Your task to perform on an android device: empty trash in the gmail app Image 0: 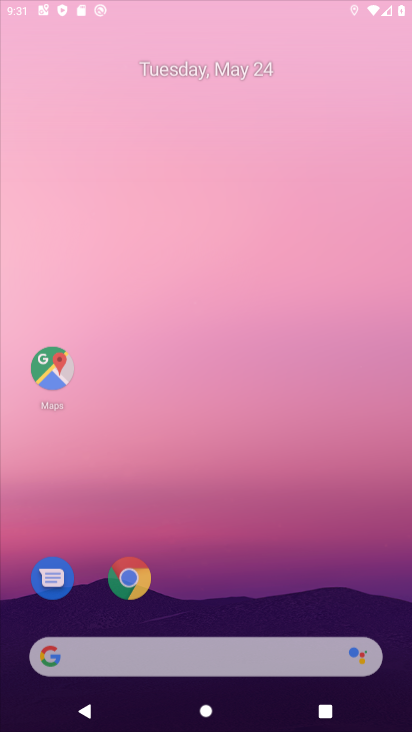
Step 0: click (151, 2)
Your task to perform on an android device: empty trash in the gmail app Image 1: 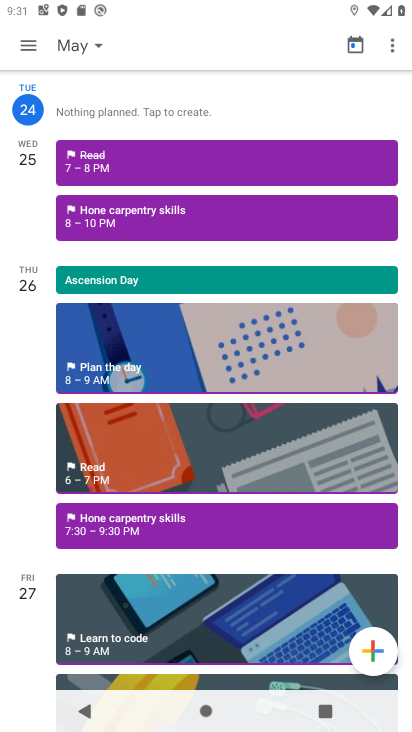
Step 1: press back button
Your task to perform on an android device: empty trash in the gmail app Image 2: 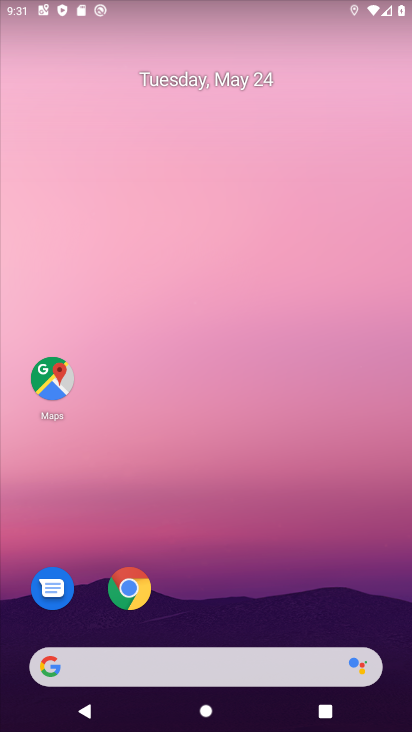
Step 2: drag from (212, 398) to (194, 70)
Your task to perform on an android device: empty trash in the gmail app Image 3: 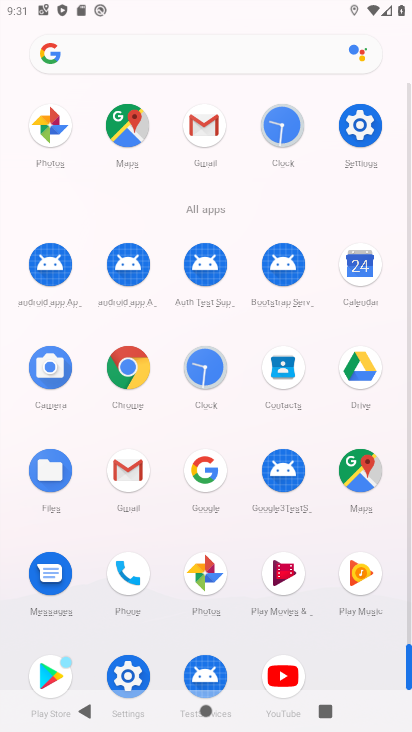
Step 3: drag from (4, 453) to (0, 228)
Your task to perform on an android device: empty trash in the gmail app Image 4: 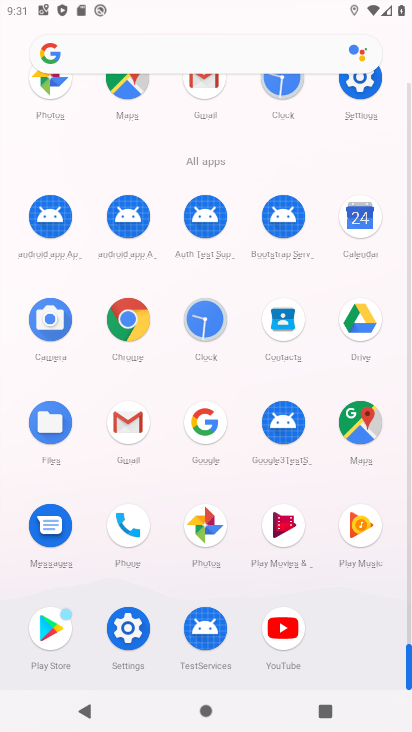
Step 4: click (126, 420)
Your task to perform on an android device: empty trash in the gmail app Image 5: 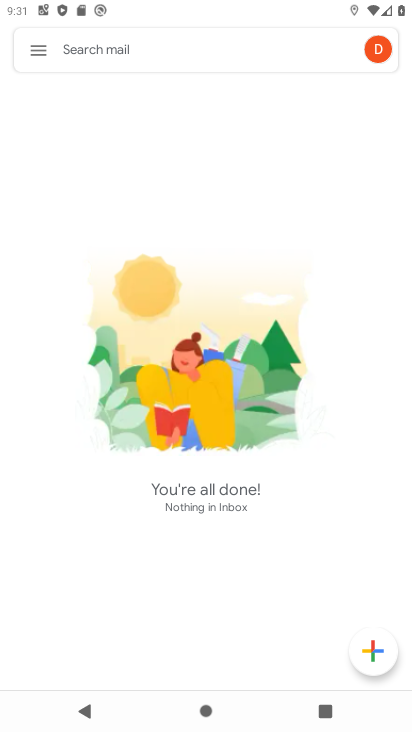
Step 5: click (38, 59)
Your task to perform on an android device: empty trash in the gmail app Image 6: 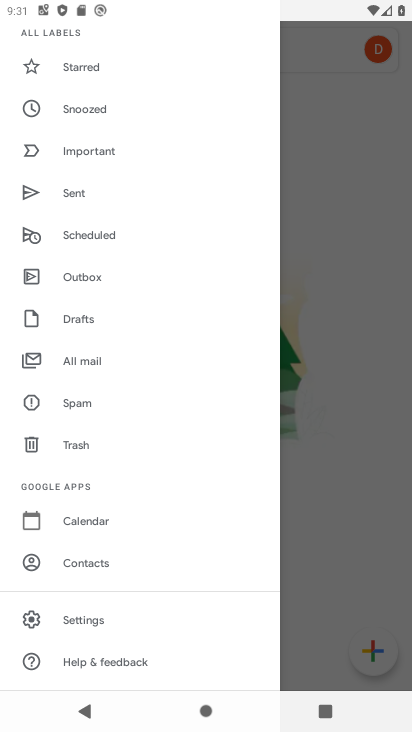
Step 6: click (95, 443)
Your task to perform on an android device: empty trash in the gmail app Image 7: 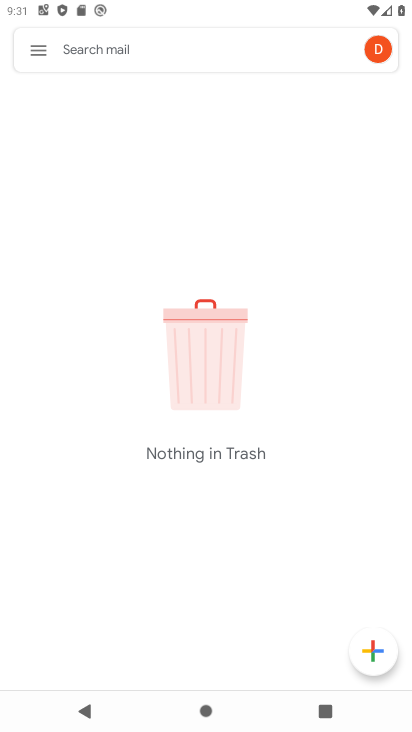
Step 7: task complete